Your task to perform on an android device: Open eBay Image 0: 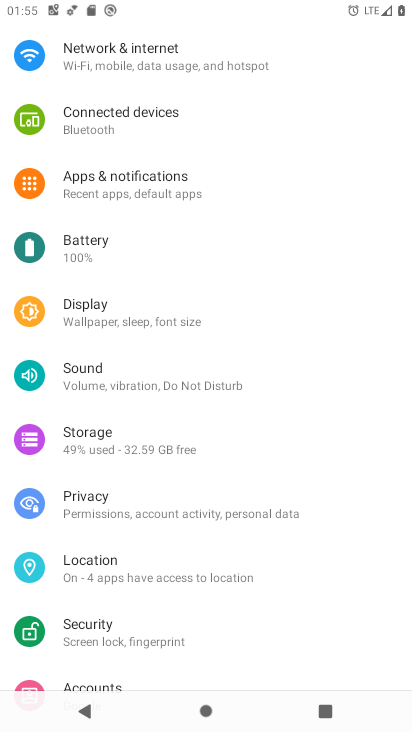
Step 0: press home button
Your task to perform on an android device: Open eBay Image 1: 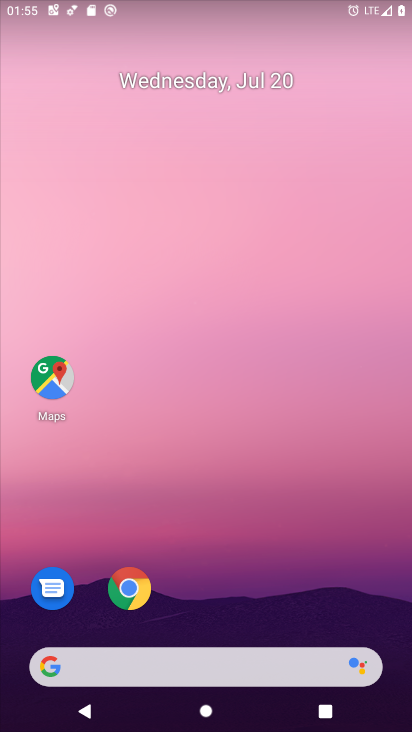
Step 1: click (138, 590)
Your task to perform on an android device: Open eBay Image 2: 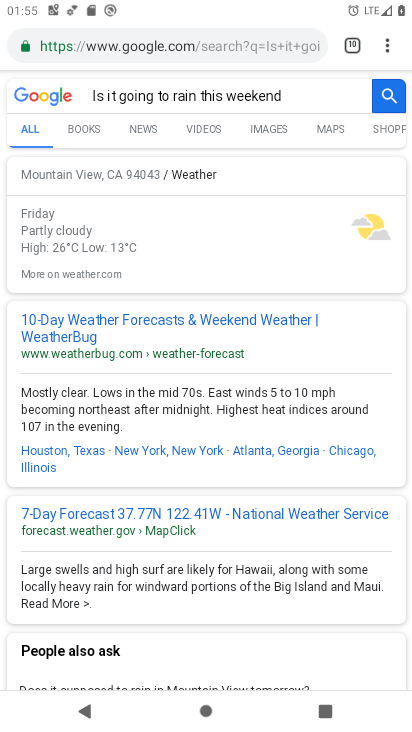
Step 2: click (387, 46)
Your task to perform on an android device: Open eBay Image 3: 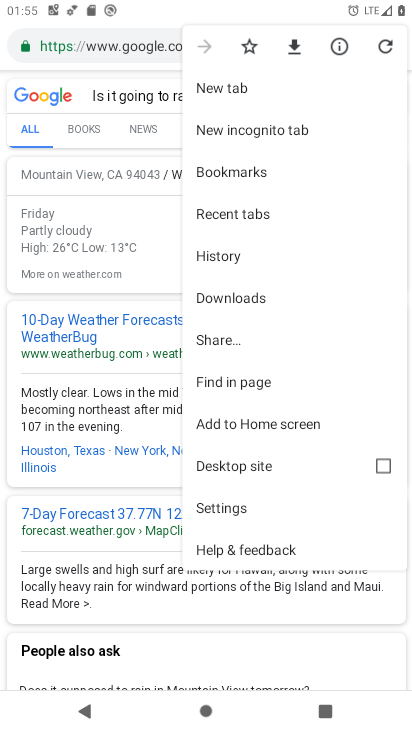
Step 3: click (215, 88)
Your task to perform on an android device: Open eBay Image 4: 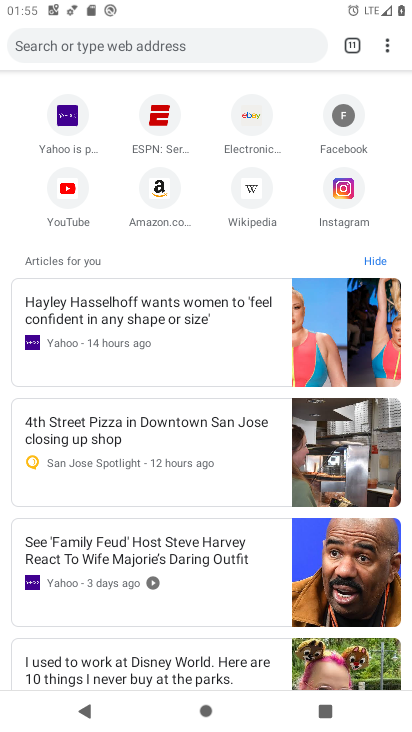
Step 4: click (261, 110)
Your task to perform on an android device: Open eBay Image 5: 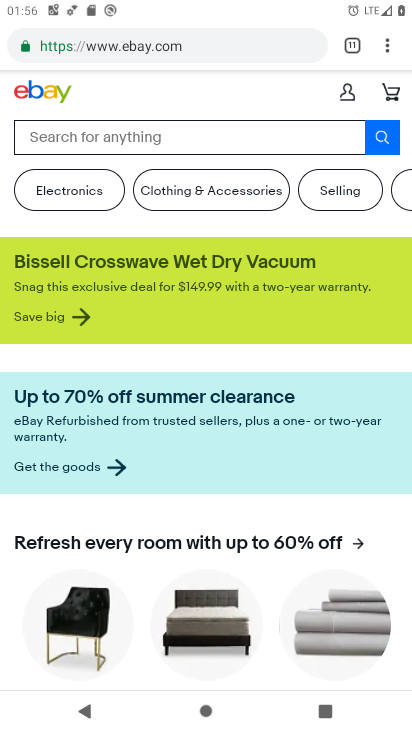
Step 5: task complete